Your task to perform on an android device: toggle data saver in the chrome app Image 0: 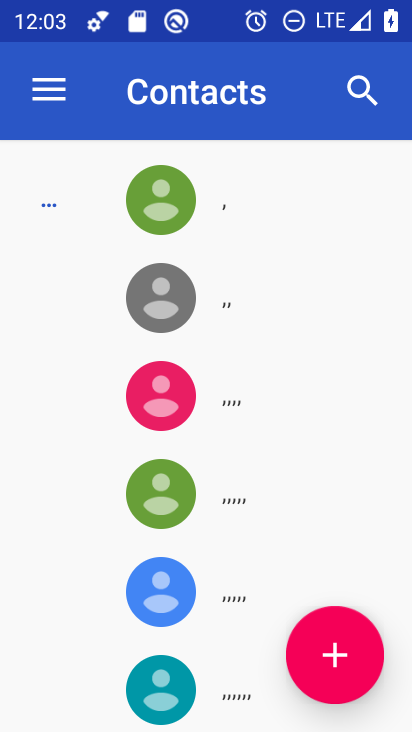
Step 0: press home button
Your task to perform on an android device: toggle data saver in the chrome app Image 1: 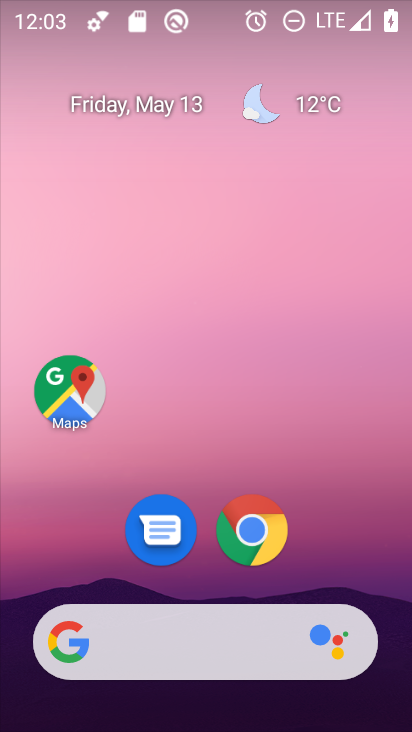
Step 1: click (258, 537)
Your task to perform on an android device: toggle data saver in the chrome app Image 2: 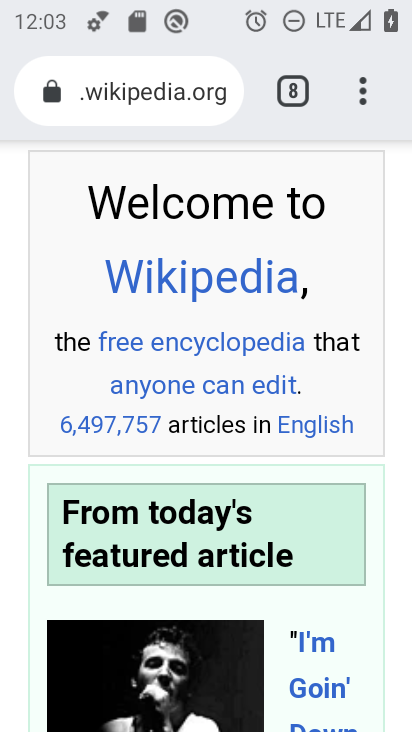
Step 2: drag from (358, 89) to (204, 568)
Your task to perform on an android device: toggle data saver in the chrome app Image 3: 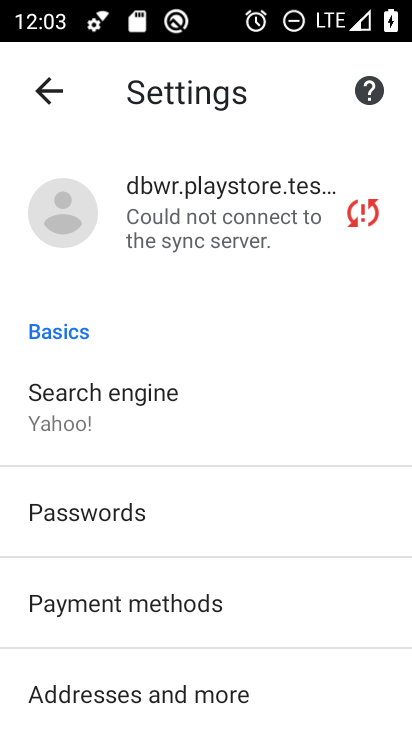
Step 3: drag from (146, 656) to (311, 225)
Your task to perform on an android device: toggle data saver in the chrome app Image 4: 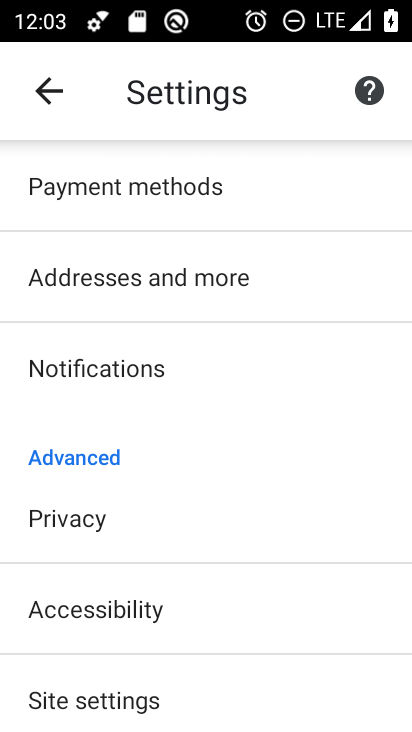
Step 4: drag from (130, 650) to (279, 325)
Your task to perform on an android device: toggle data saver in the chrome app Image 5: 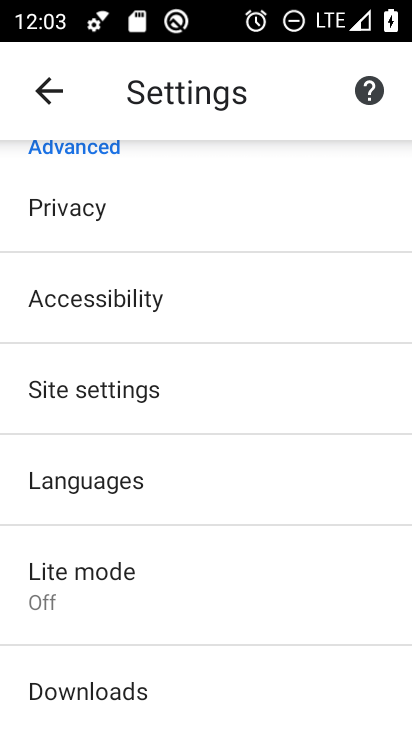
Step 5: click (108, 575)
Your task to perform on an android device: toggle data saver in the chrome app Image 6: 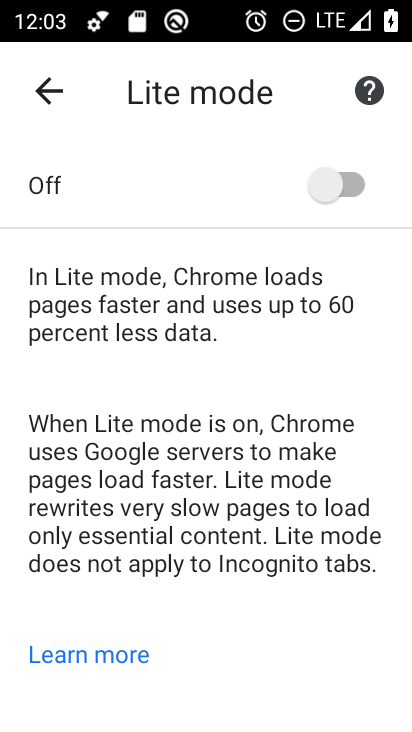
Step 6: click (354, 187)
Your task to perform on an android device: toggle data saver in the chrome app Image 7: 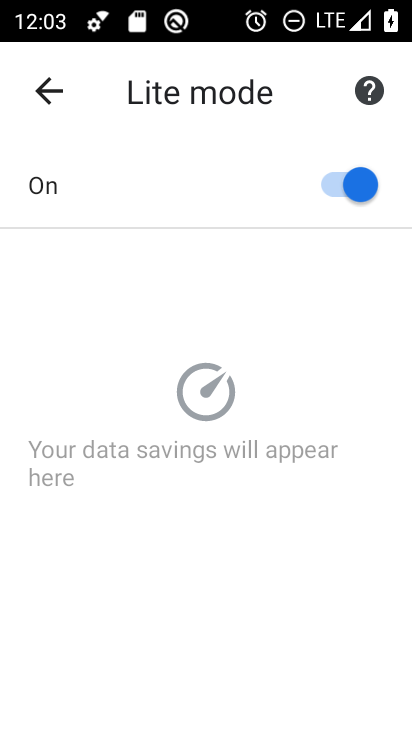
Step 7: task complete